Your task to perform on an android device: turn off location history Image 0: 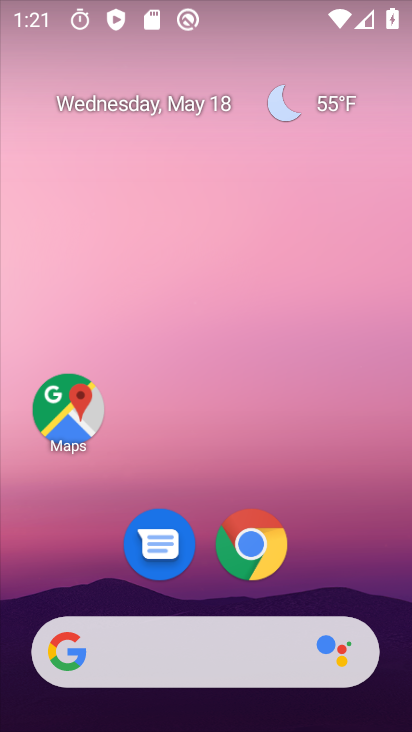
Step 0: drag from (321, 578) to (271, 271)
Your task to perform on an android device: turn off location history Image 1: 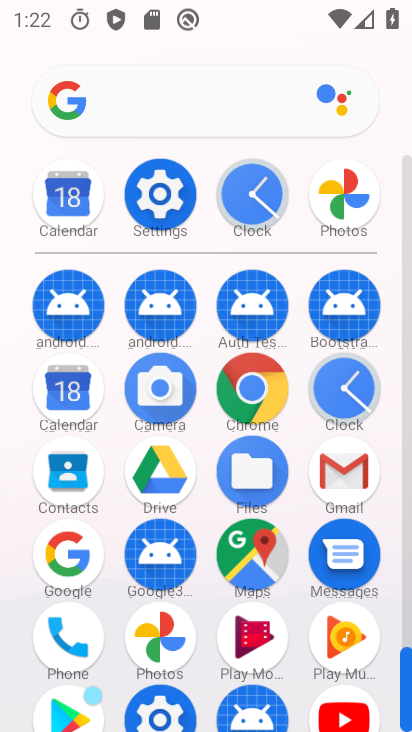
Step 1: click (160, 203)
Your task to perform on an android device: turn off location history Image 2: 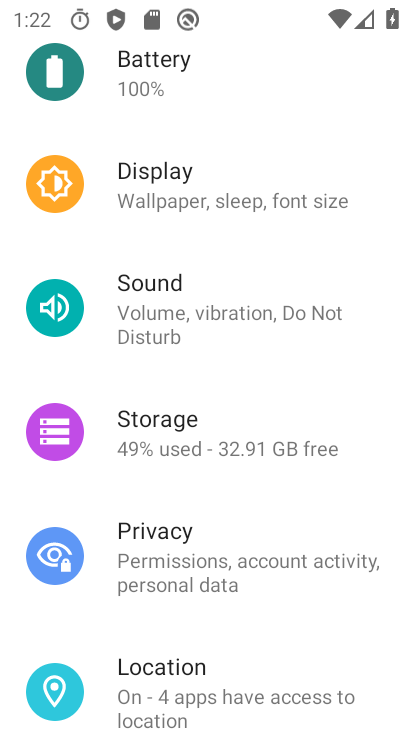
Step 2: click (197, 668)
Your task to perform on an android device: turn off location history Image 3: 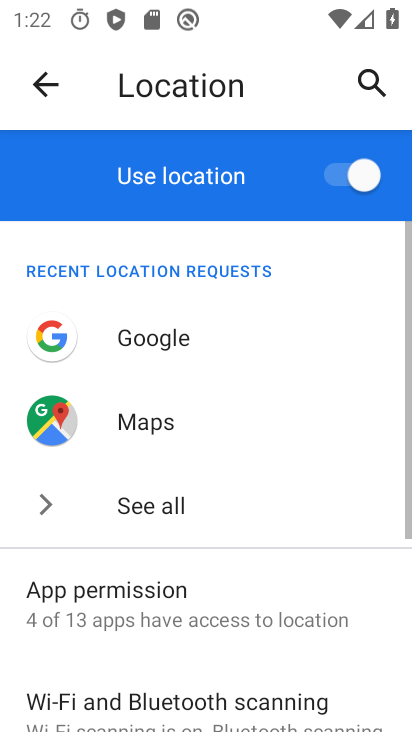
Step 3: drag from (296, 628) to (260, 324)
Your task to perform on an android device: turn off location history Image 4: 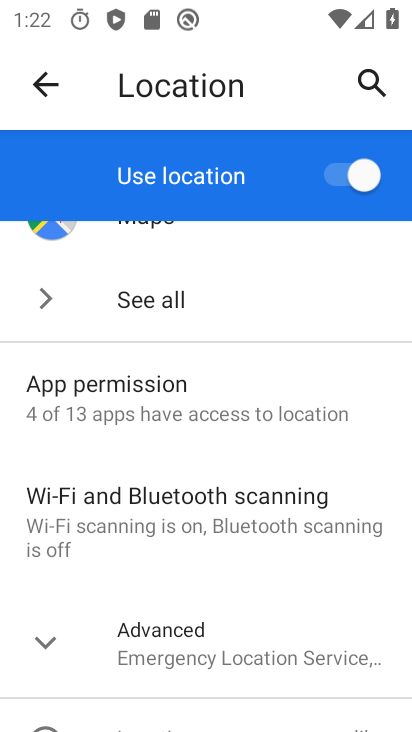
Step 4: click (204, 645)
Your task to perform on an android device: turn off location history Image 5: 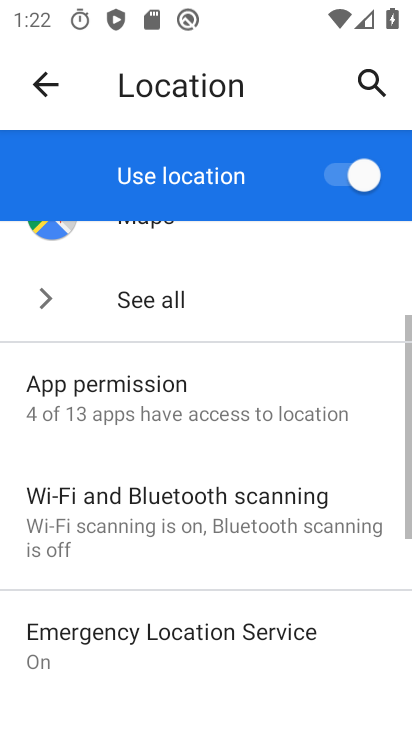
Step 5: task complete